Your task to perform on an android device: Open calendar and show me the first week of next month Image 0: 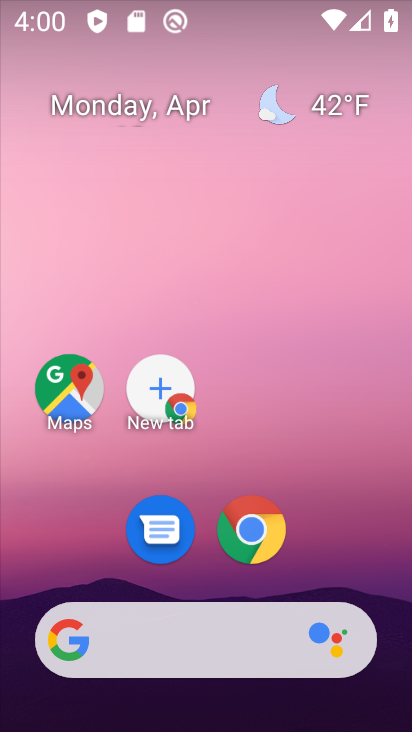
Step 0: drag from (219, 396) to (288, 24)
Your task to perform on an android device: Open calendar and show me the first week of next month Image 1: 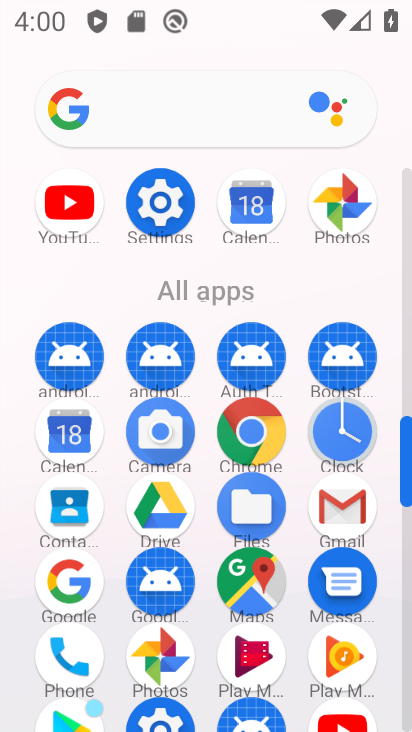
Step 1: click (75, 435)
Your task to perform on an android device: Open calendar and show me the first week of next month Image 2: 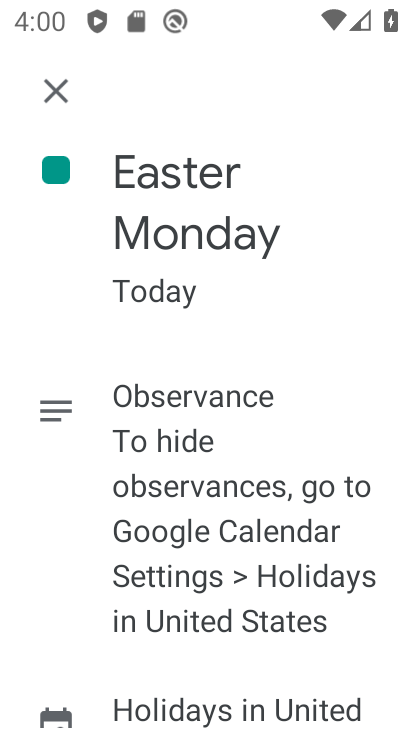
Step 2: click (45, 77)
Your task to perform on an android device: Open calendar and show me the first week of next month Image 3: 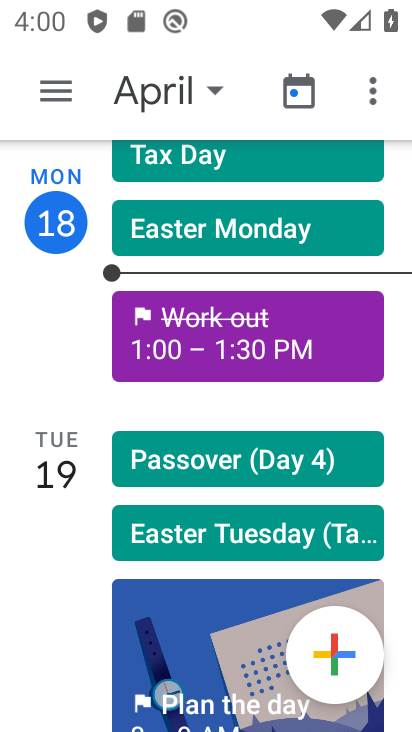
Step 3: click (197, 92)
Your task to perform on an android device: Open calendar and show me the first week of next month Image 4: 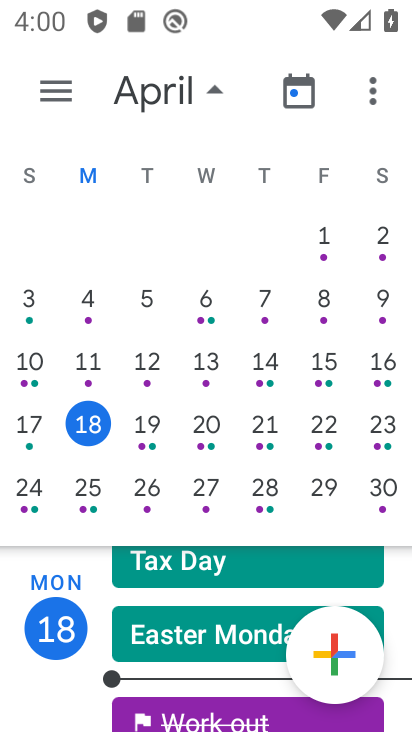
Step 4: drag from (358, 385) to (12, 399)
Your task to perform on an android device: Open calendar and show me the first week of next month Image 5: 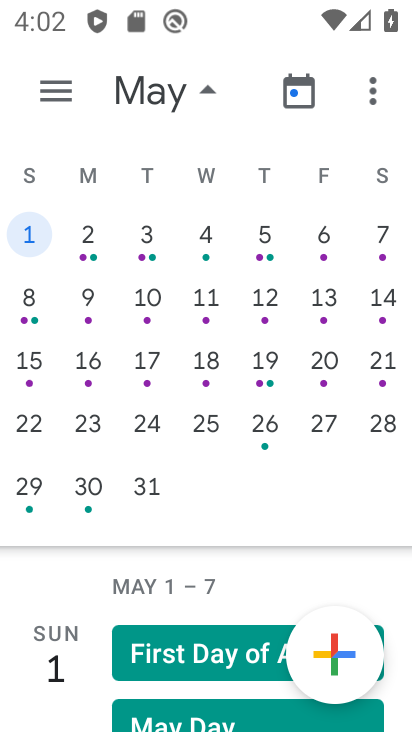
Step 5: click (90, 241)
Your task to perform on an android device: Open calendar and show me the first week of next month Image 6: 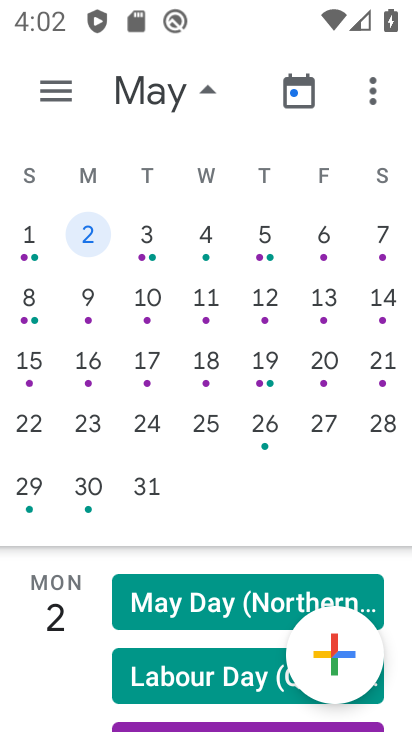
Step 6: task complete